Your task to perform on an android device: Show the shopping cart on target.com. Add "macbook pro 15 inch" to the cart on target.com Image 0: 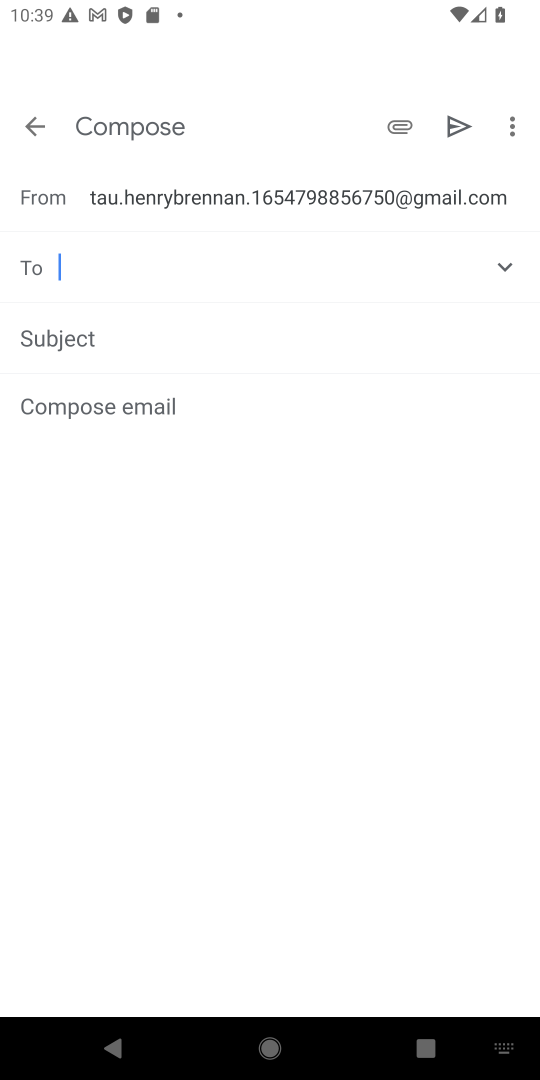
Step 0: press home button
Your task to perform on an android device: Show the shopping cart on target.com. Add "macbook pro 15 inch" to the cart on target.com Image 1: 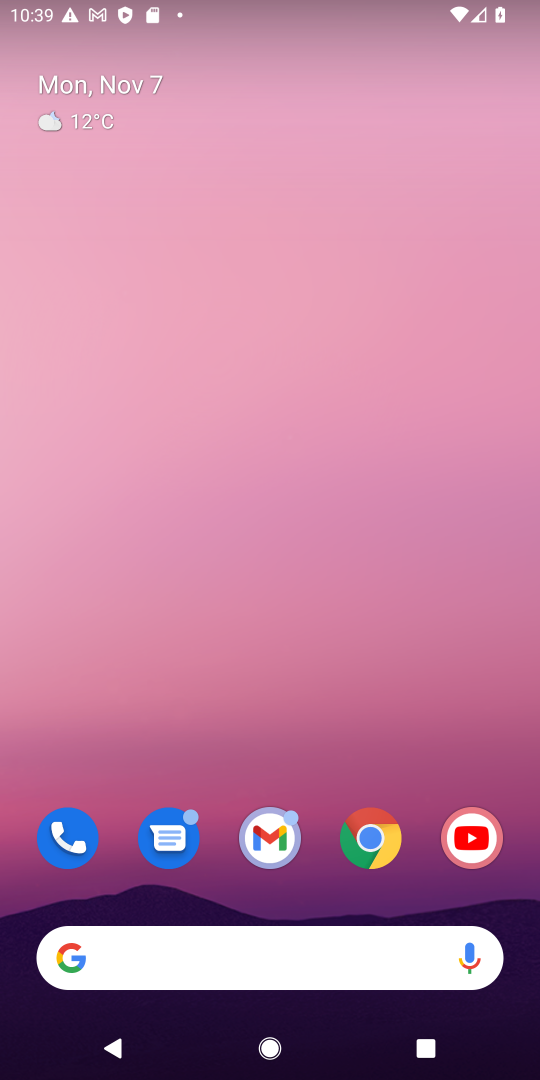
Step 1: click (382, 841)
Your task to perform on an android device: Show the shopping cart on target.com. Add "macbook pro 15 inch" to the cart on target.com Image 2: 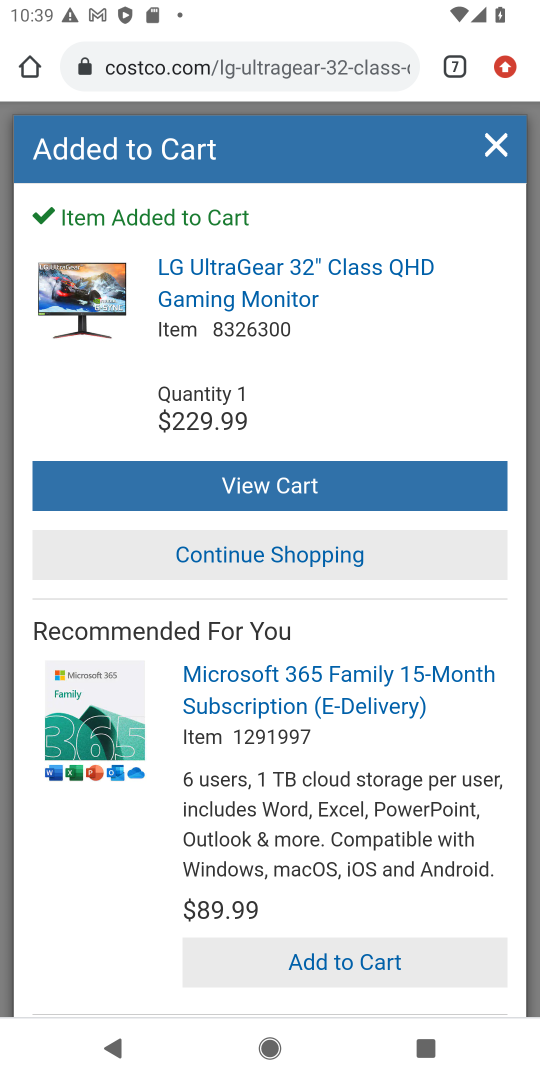
Step 2: click (456, 60)
Your task to perform on an android device: Show the shopping cart on target.com. Add "macbook pro 15 inch" to the cart on target.com Image 3: 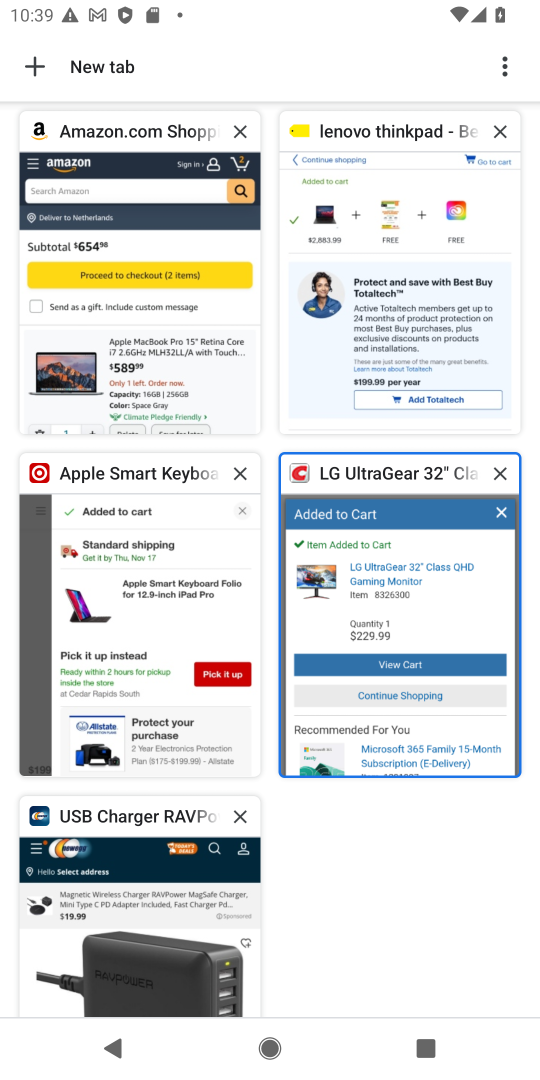
Step 3: click (149, 633)
Your task to perform on an android device: Show the shopping cart on target.com. Add "macbook pro 15 inch" to the cart on target.com Image 4: 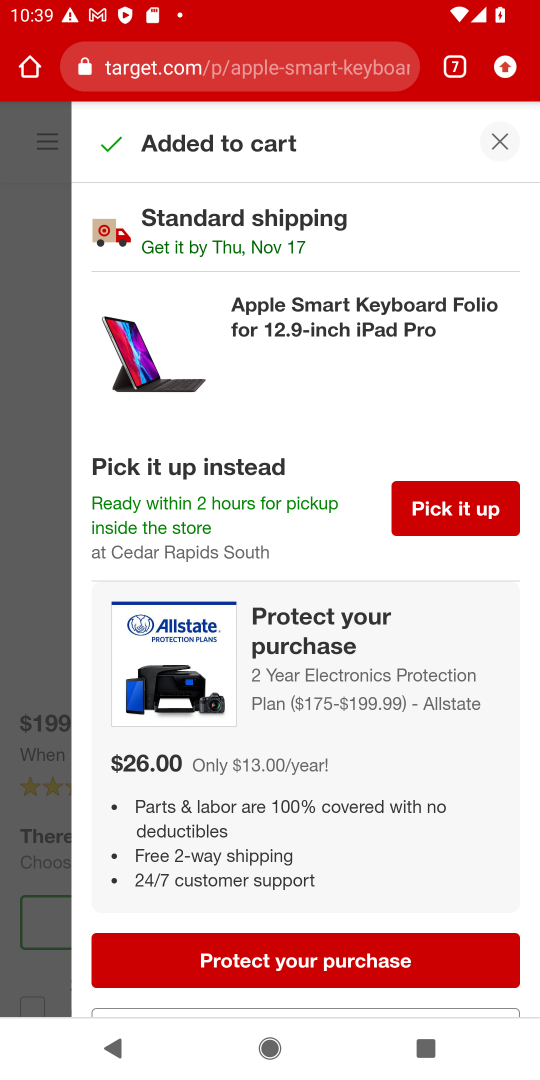
Step 4: click (504, 136)
Your task to perform on an android device: Show the shopping cart on target.com. Add "macbook pro 15 inch" to the cart on target.com Image 5: 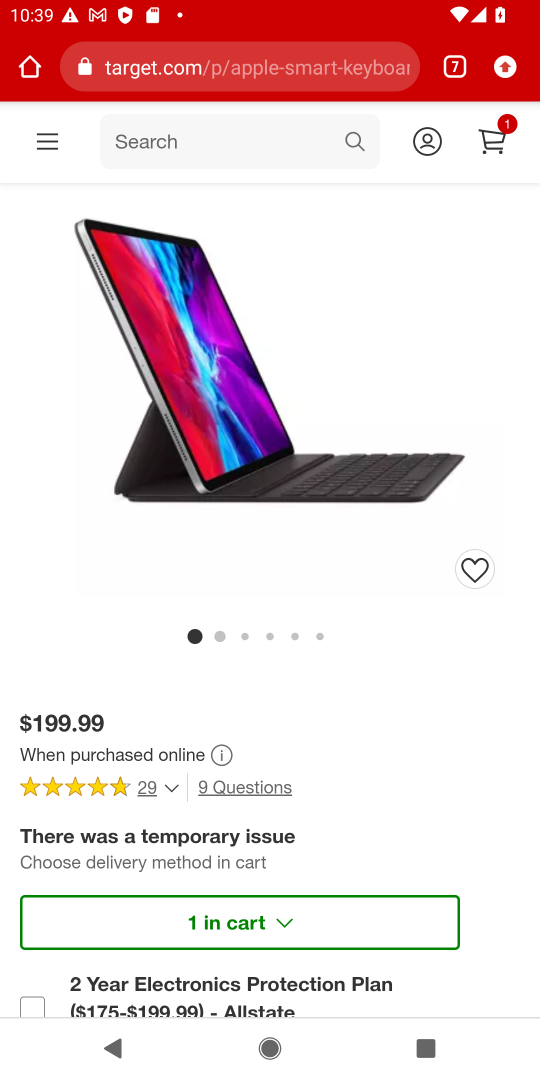
Step 5: click (350, 140)
Your task to perform on an android device: Show the shopping cart on target.com. Add "macbook pro 15 inch" to the cart on target.com Image 6: 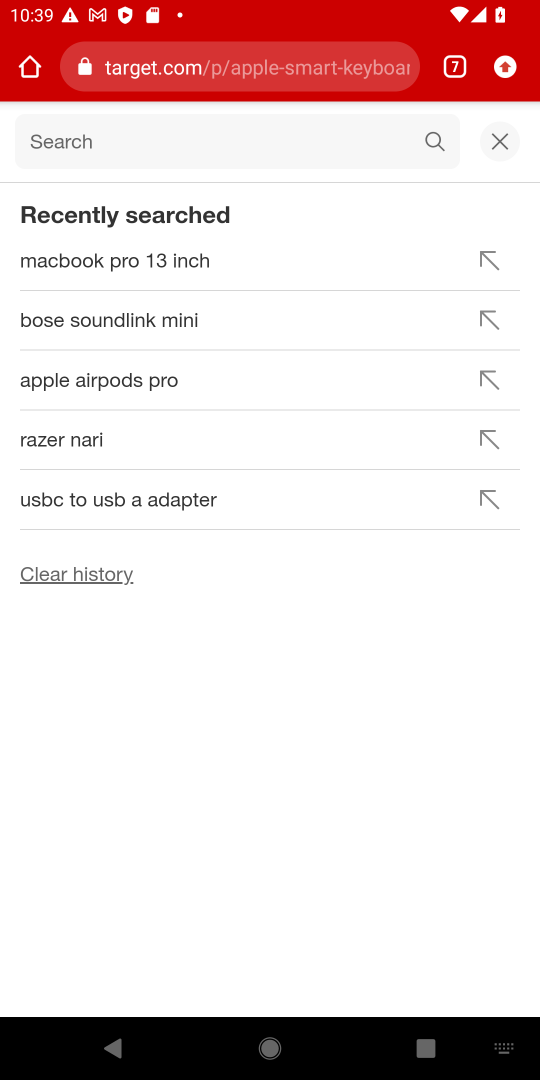
Step 6: type "macbook pro 15 inch"
Your task to perform on an android device: Show the shopping cart on target.com. Add "macbook pro 15 inch" to the cart on target.com Image 7: 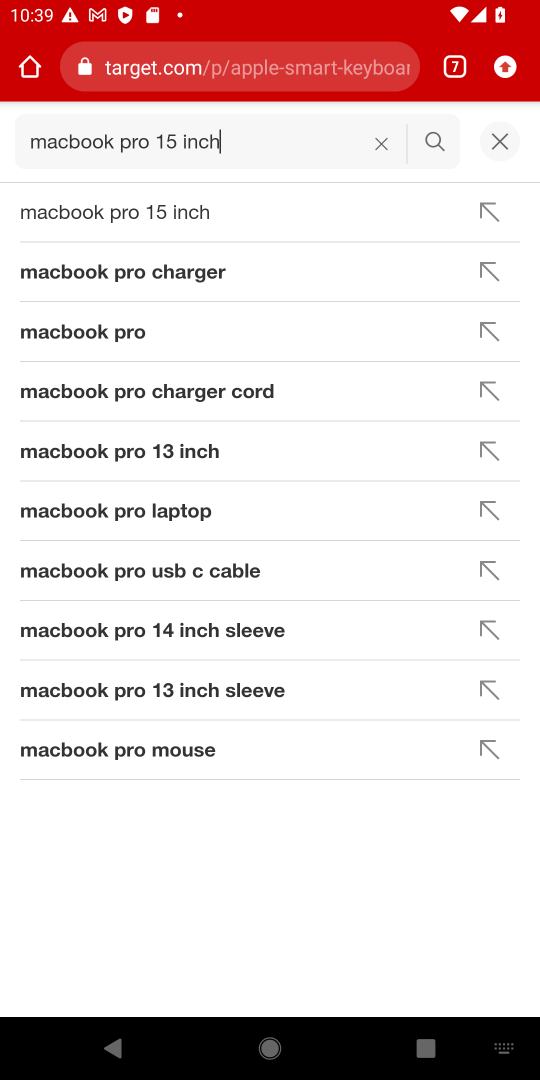
Step 7: click (195, 213)
Your task to perform on an android device: Show the shopping cart on target.com. Add "macbook pro 15 inch" to the cart on target.com Image 8: 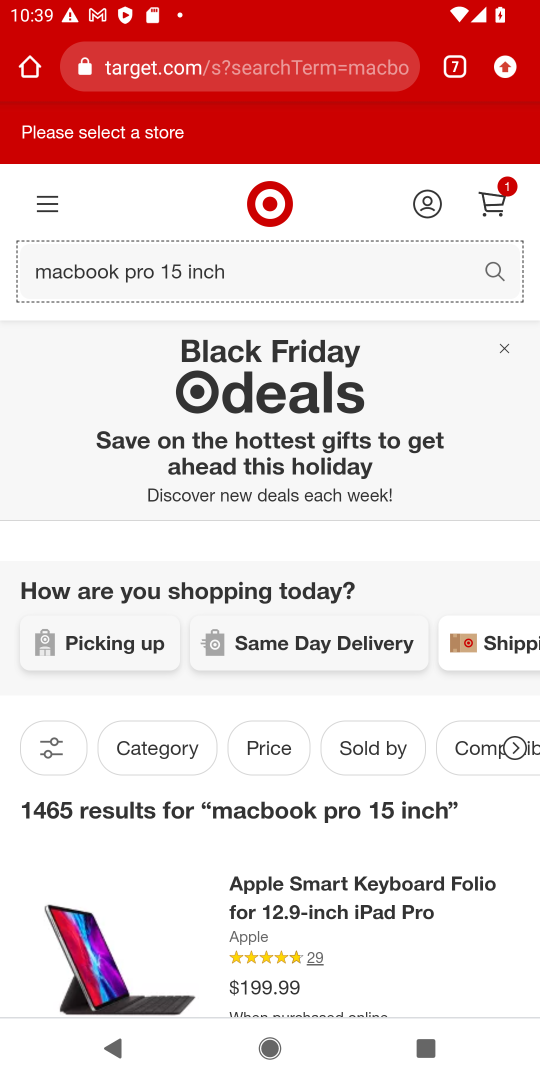
Step 8: drag from (432, 951) to (448, 581)
Your task to perform on an android device: Show the shopping cart on target.com. Add "macbook pro 15 inch" to the cart on target.com Image 9: 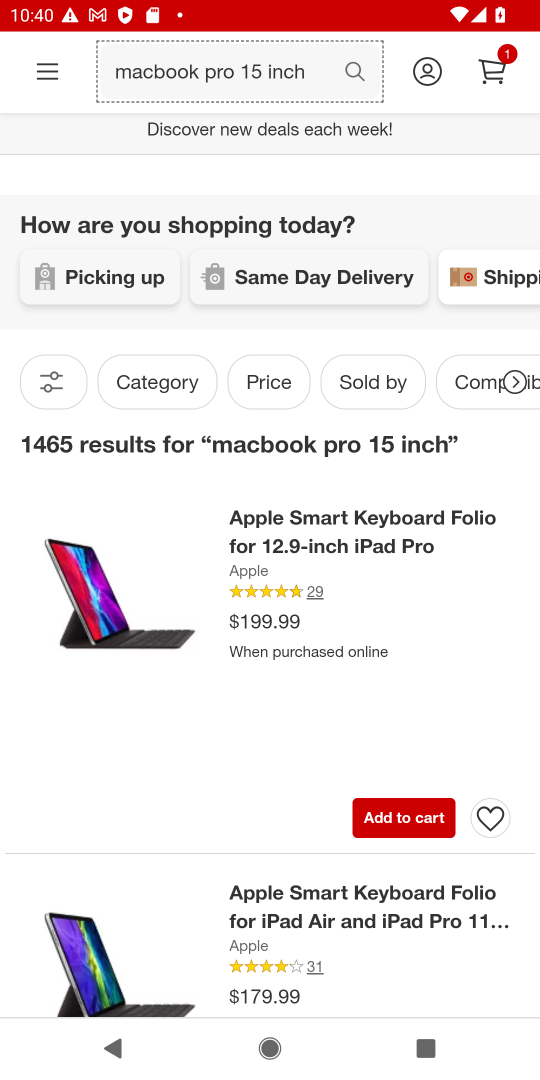
Step 9: drag from (393, 687) to (437, 320)
Your task to perform on an android device: Show the shopping cart on target.com. Add "macbook pro 15 inch" to the cart on target.com Image 10: 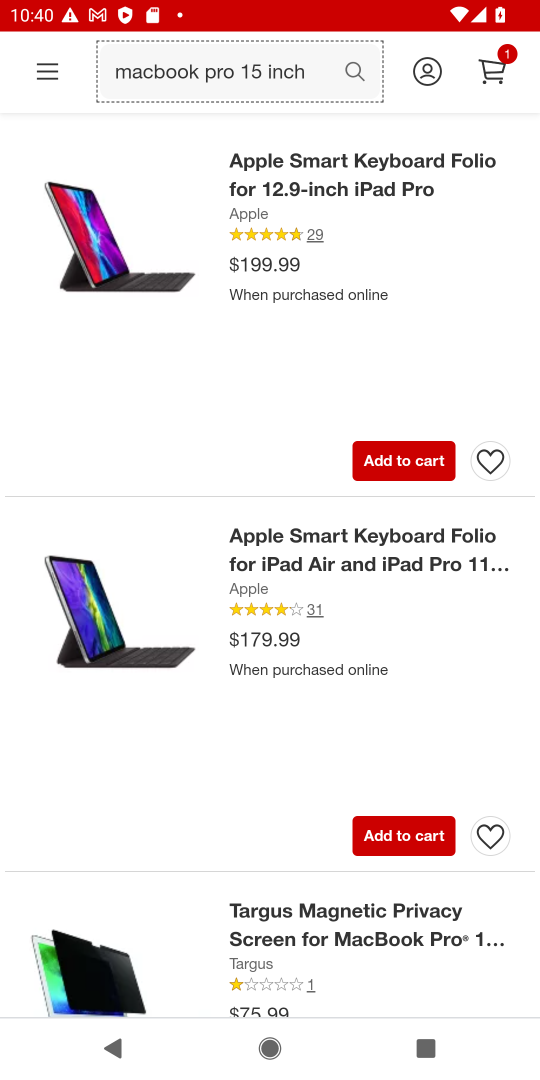
Step 10: click (390, 165)
Your task to perform on an android device: Show the shopping cart on target.com. Add "macbook pro 15 inch" to the cart on target.com Image 11: 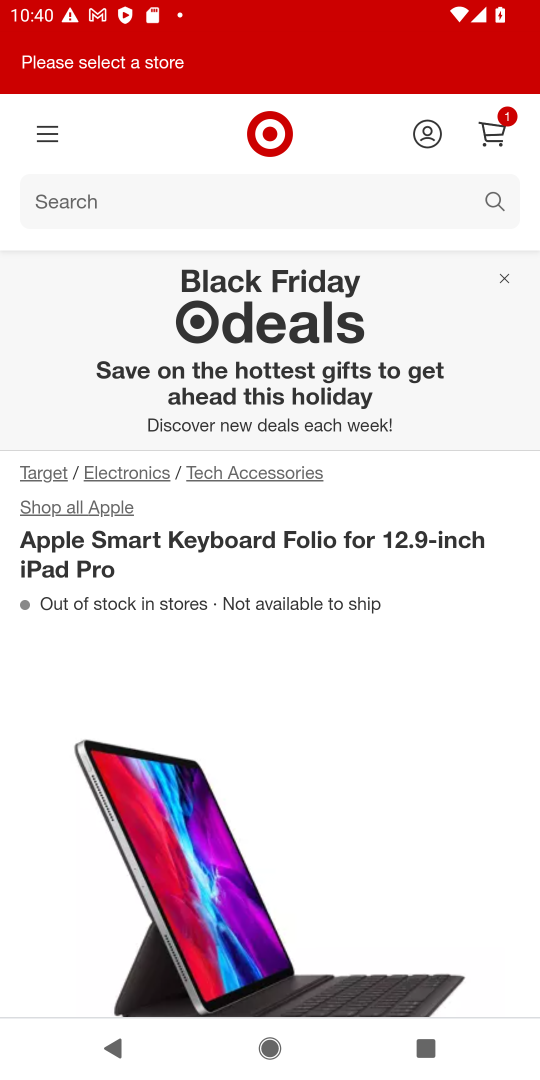
Step 11: drag from (410, 633) to (397, 154)
Your task to perform on an android device: Show the shopping cart on target.com. Add "macbook pro 15 inch" to the cart on target.com Image 12: 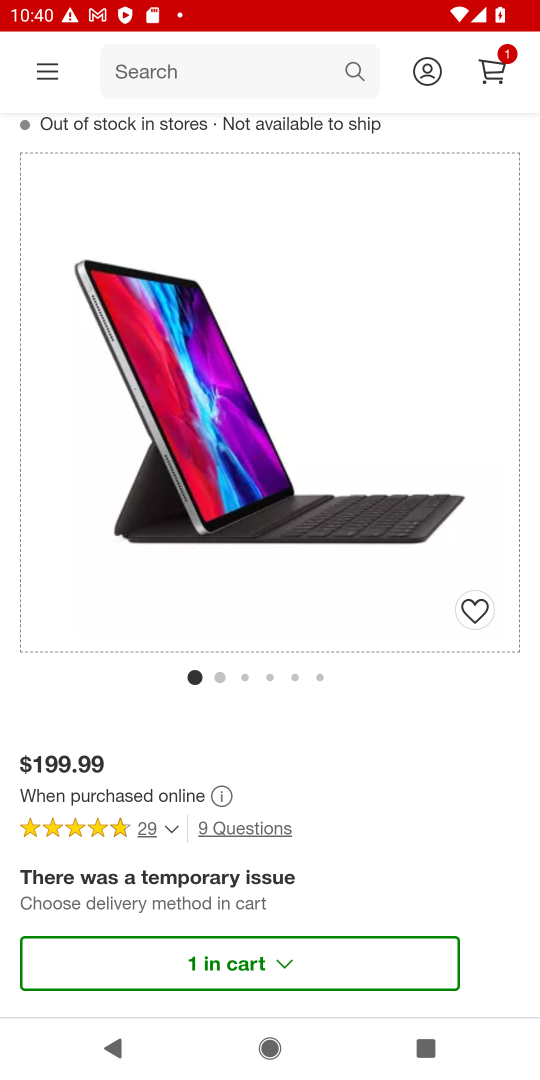
Step 12: drag from (365, 795) to (333, 210)
Your task to perform on an android device: Show the shopping cart on target.com. Add "macbook pro 15 inch" to the cart on target.com Image 13: 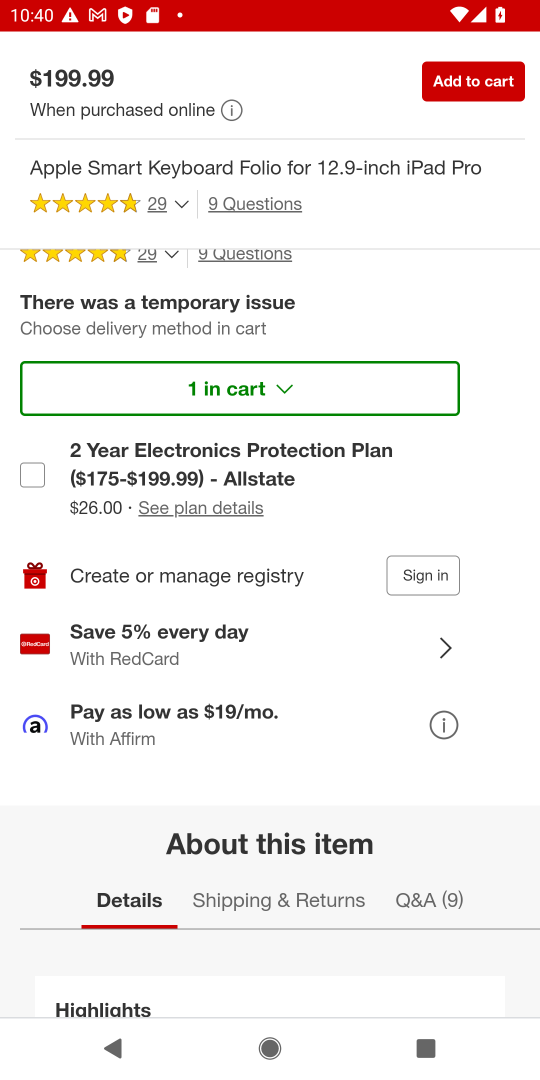
Step 13: drag from (341, 731) to (317, 337)
Your task to perform on an android device: Show the shopping cart on target.com. Add "macbook pro 15 inch" to the cart on target.com Image 14: 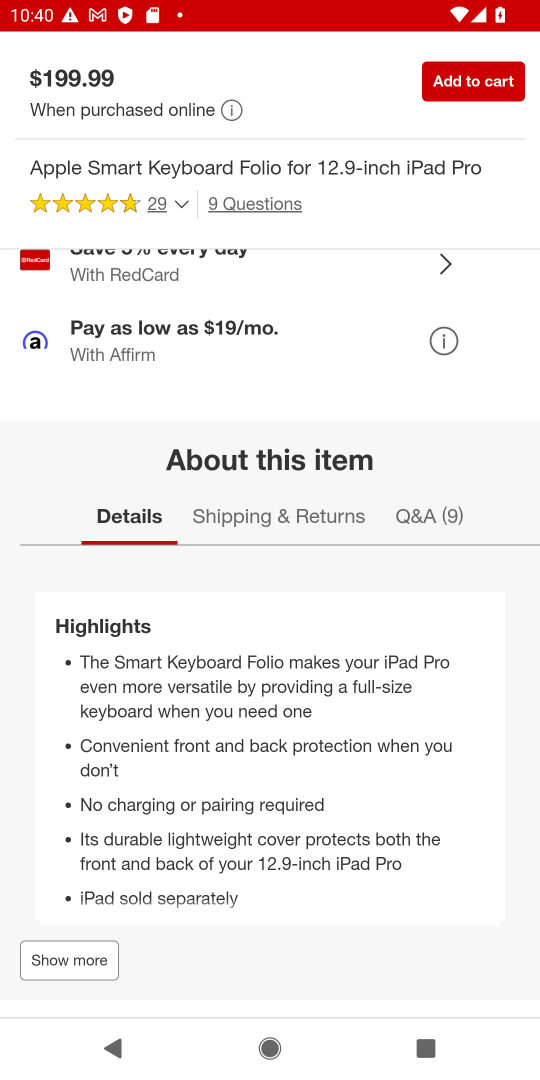
Step 14: drag from (312, 749) to (292, 373)
Your task to perform on an android device: Show the shopping cart on target.com. Add "macbook pro 15 inch" to the cart on target.com Image 15: 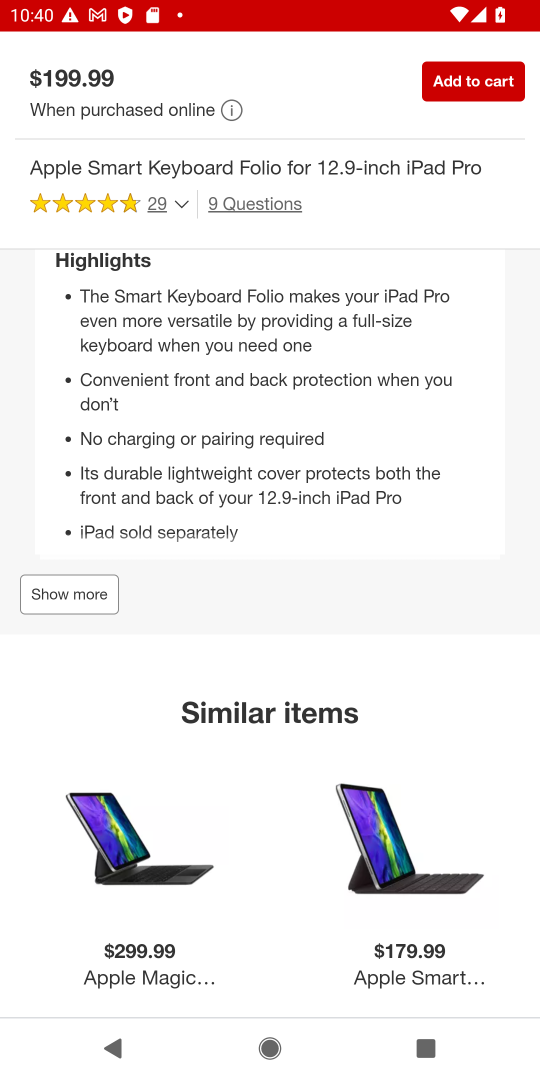
Step 15: drag from (291, 642) to (268, 192)
Your task to perform on an android device: Show the shopping cart on target.com. Add "macbook pro 15 inch" to the cart on target.com Image 16: 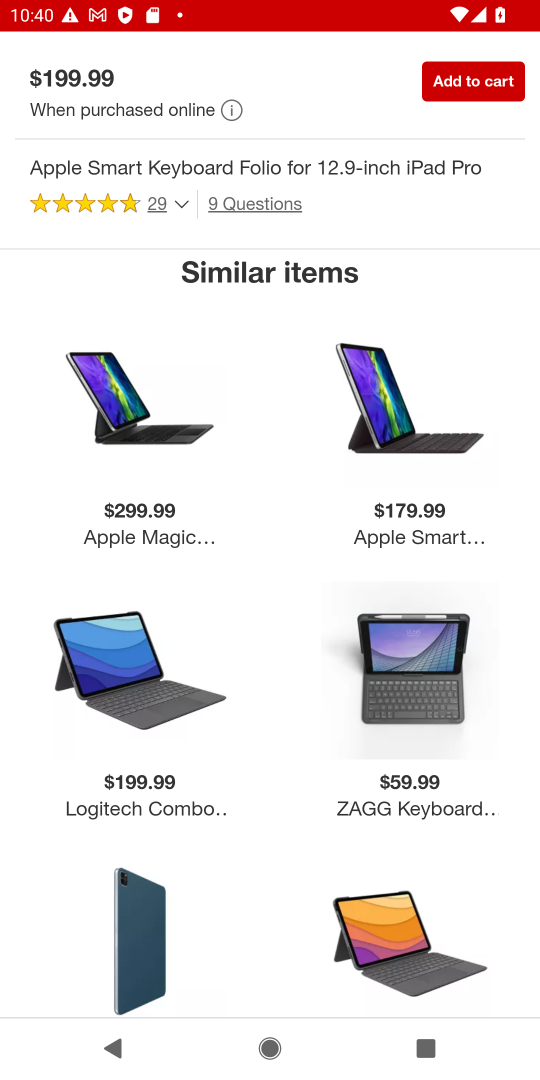
Step 16: drag from (242, 685) to (285, 225)
Your task to perform on an android device: Show the shopping cart on target.com. Add "macbook pro 15 inch" to the cart on target.com Image 17: 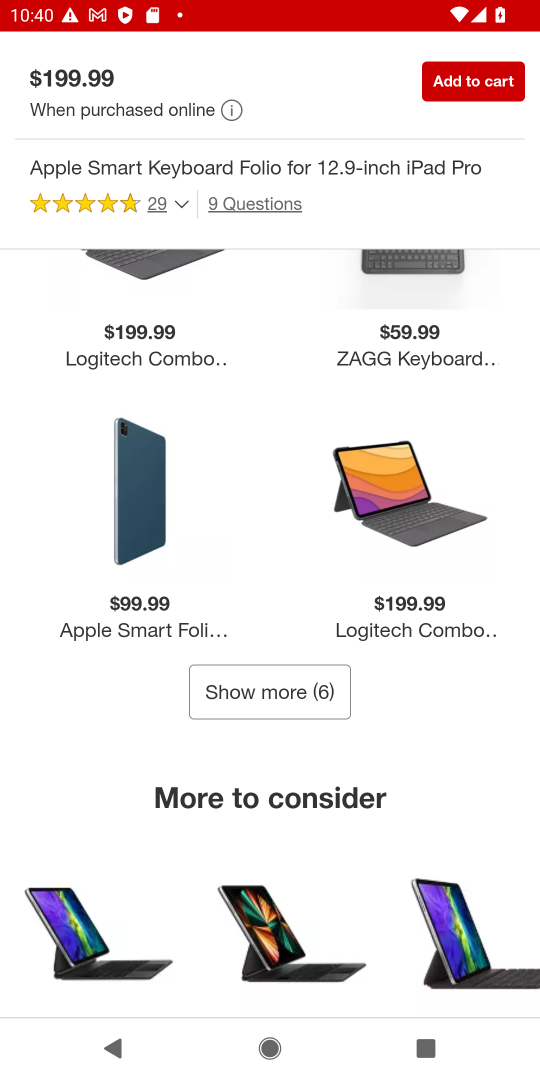
Step 17: click (437, 82)
Your task to perform on an android device: Show the shopping cart on target.com. Add "macbook pro 15 inch" to the cart on target.com Image 18: 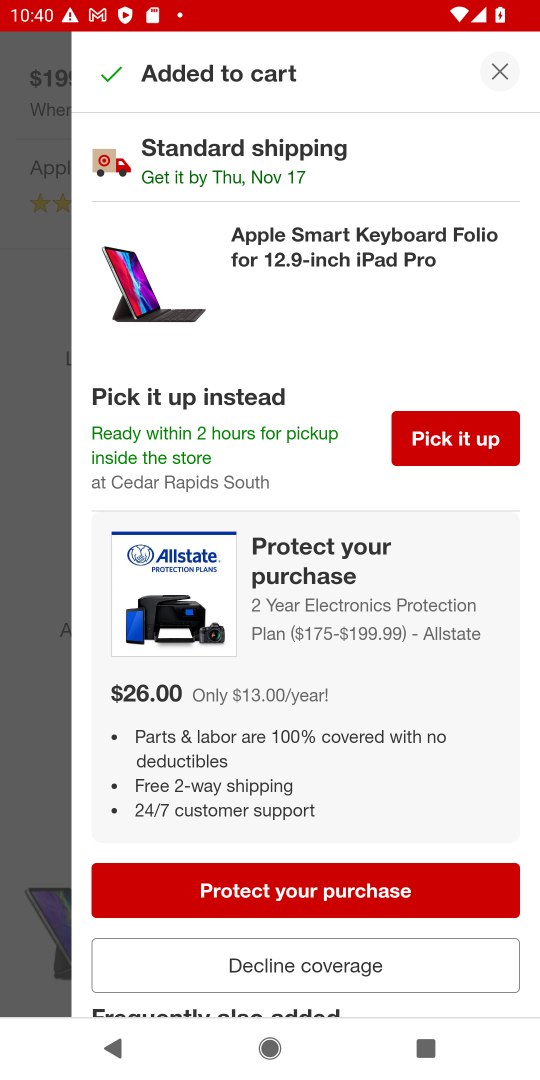
Step 18: task complete